Your task to perform on an android device: open a bookmark in the chrome app Image 0: 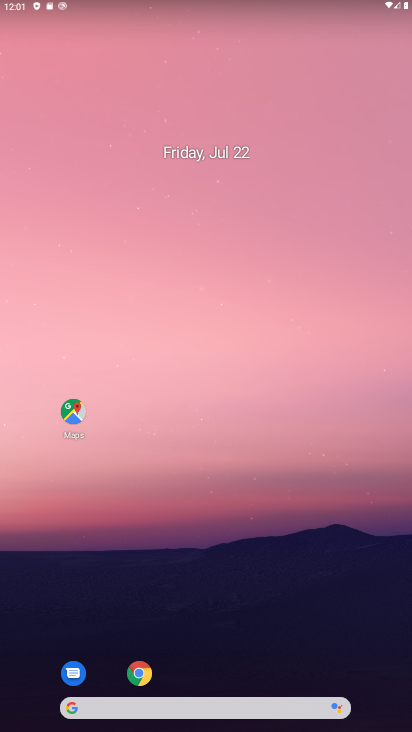
Step 0: drag from (211, 672) to (34, 521)
Your task to perform on an android device: open a bookmark in the chrome app Image 1: 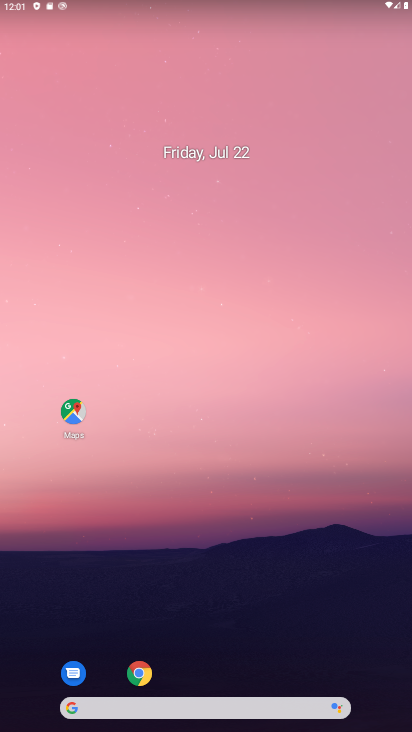
Step 1: click (140, 670)
Your task to perform on an android device: open a bookmark in the chrome app Image 2: 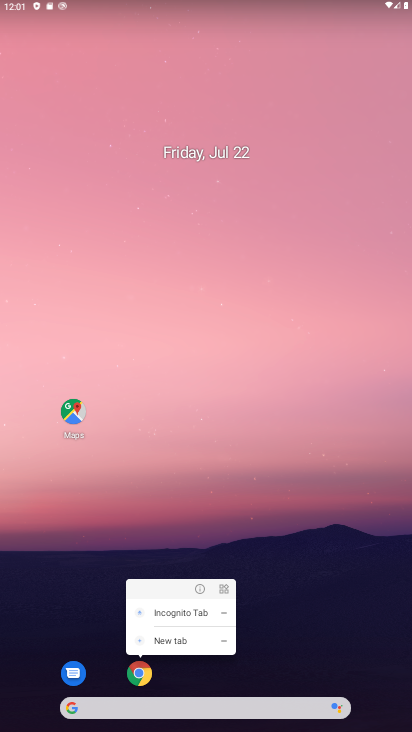
Step 2: click (197, 588)
Your task to perform on an android device: open a bookmark in the chrome app Image 3: 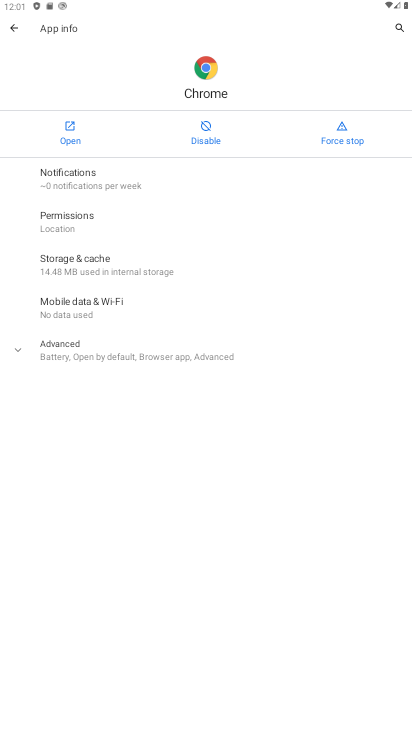
Step 3: click (79, 126)
Your task to perform on an android device: open a bookmark in the chrome app Image 4: 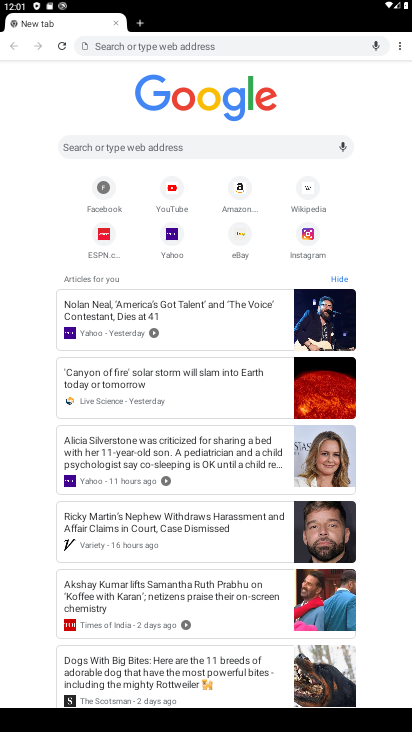
Step 4: task complete